Your task to perform on an android device: allow notifications from all sites in the chrome app Image 0: 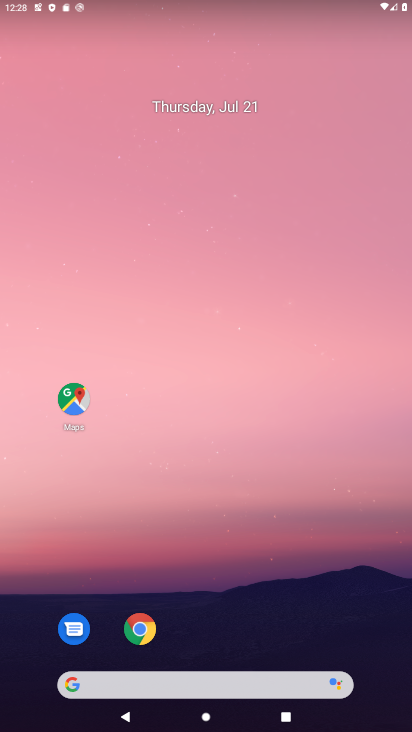
Step 0: drag from (320, 528) to (229, 0)
Your task to perform on an android device: allow notifications from all sites in the chrome app Image 1: 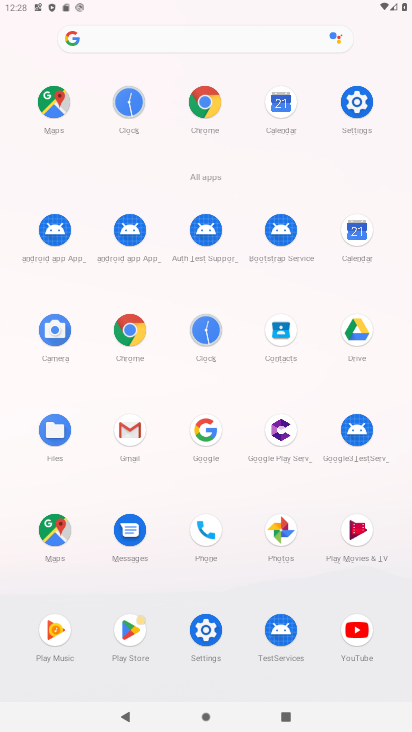
Step 1: click (206, 106)
Your task to perform on an android device: allow notifications from all sites in the chrome app Image 2: 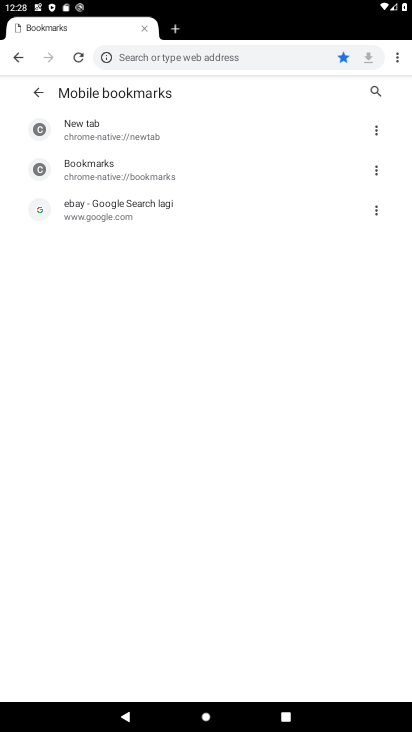
Step 2: drag from (399, 60) to (282, 301)
Your task to perform on an android device: allow notifications from all sites in the chrome app Image 3: 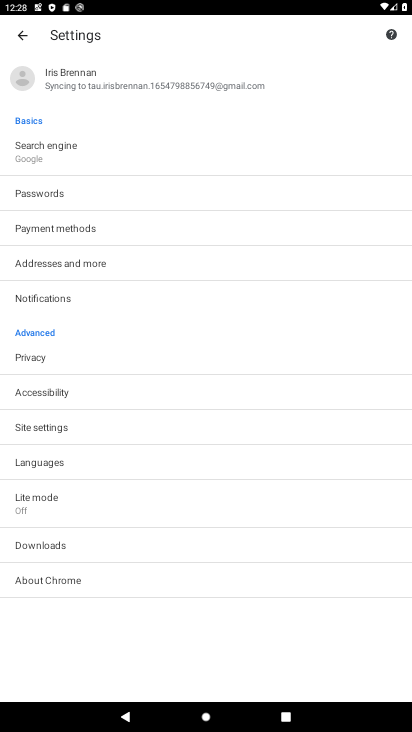
Step 3: click (82, 297)
Your task to perform on an android device: allow notifications from all sites in the chrome app Image 4: 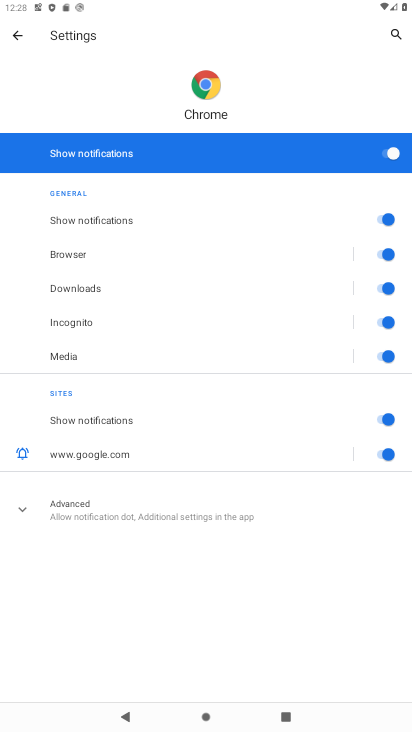
Step 4: task complete